Your task to perform on an android device: Show me popular videos on Youtube Image 0: 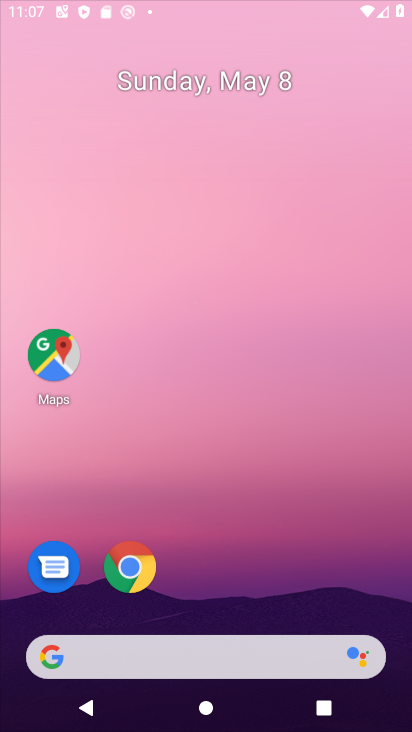
Step 0: click (276, 64)
Your task to perform on an android device: Show me popular videos on Youtube Image 1: 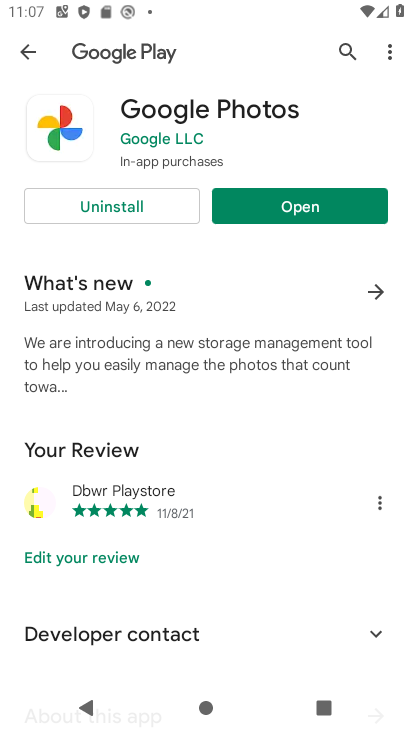
Step 1: press home button
Your task to perform on an android device: Show me popular videos on Youtube Image 2: 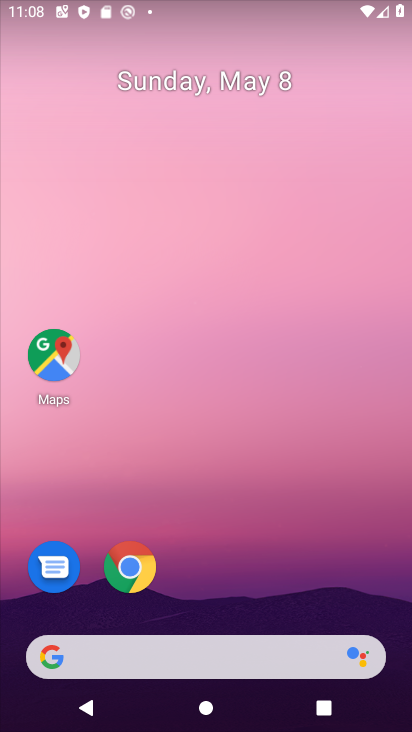
Step 2: drag from (227, 567) to (324, 48)
Your task to perform on an android device: Show me popular videos on Youtube Image 3: 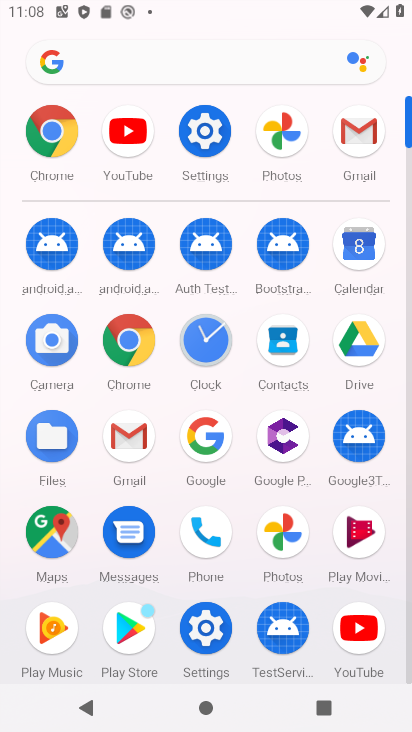
Step 3: click (357, 626)
Your task to perform on an android device: Show me popular videos on Youtube Image 4: 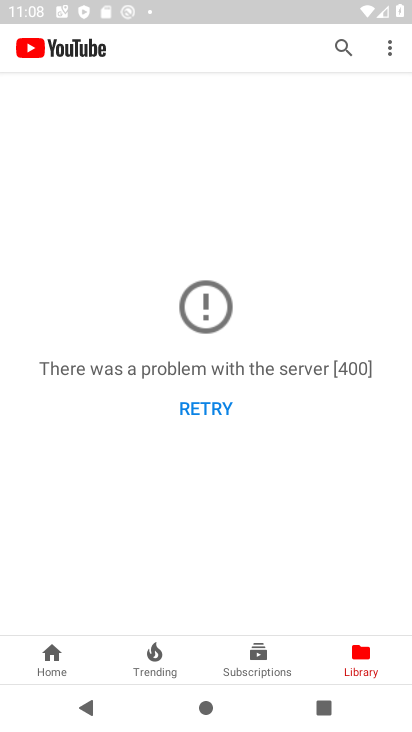
Step 4: task complete